Your task to perform on an android device: set the stopwatch Image 0: 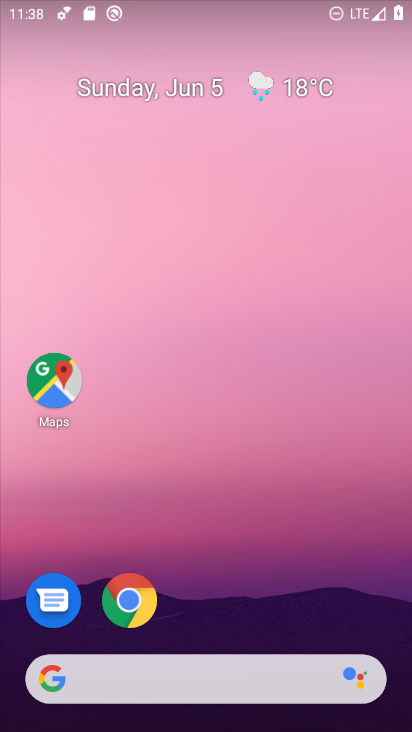
Step 0: drag from (239, 620) to (227, 269)
Your task to perform on an android device: set the stopwatch Image 1: 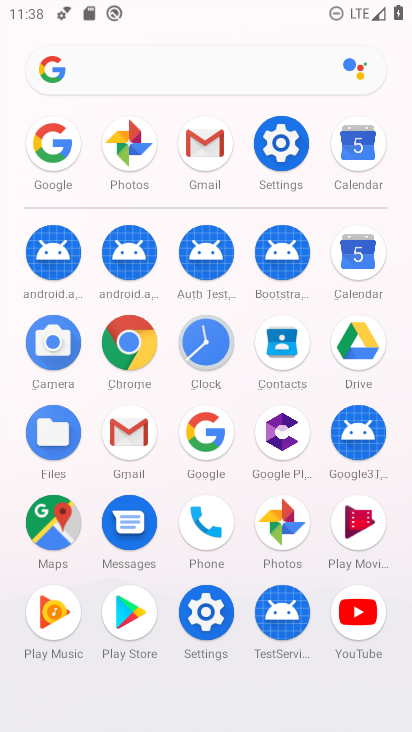
Step 1: click (197, 349)
Your task to perform on an android device: set the stopwatch Image 2: 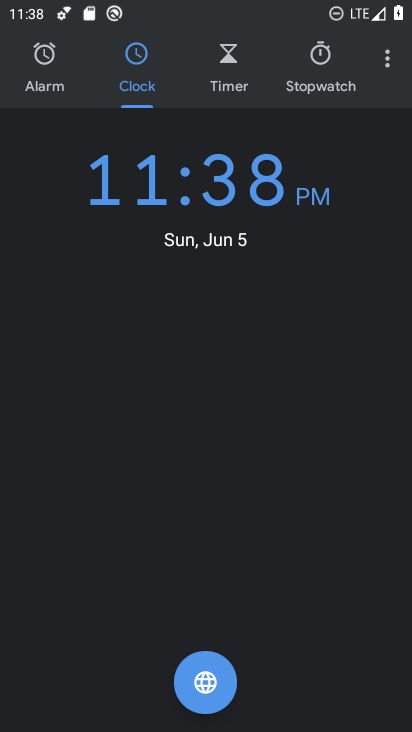
Step 2: click (322, 84)
Your task to perform on an android device: set the stopwatch Image 3: 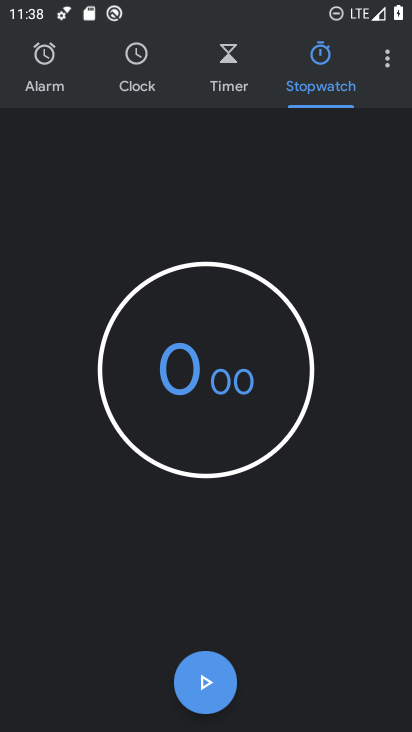
Step 3: task complete